Your task to perform on an android device: set an alarm Image 0: 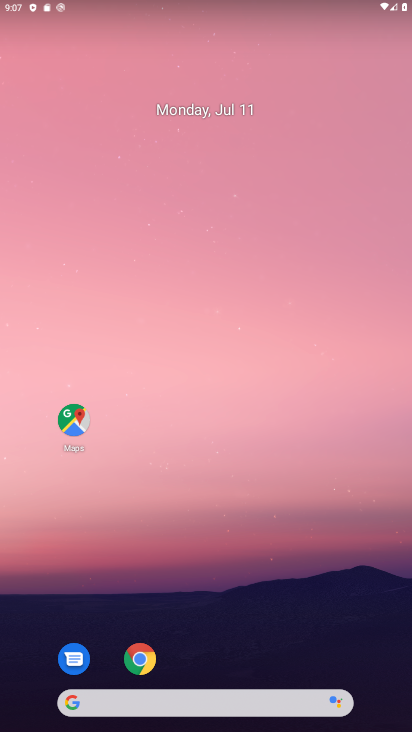
Step 0: drag from (357, 651) to (377, 65)
Your task to perform on an android device: set an alarm Image 1: 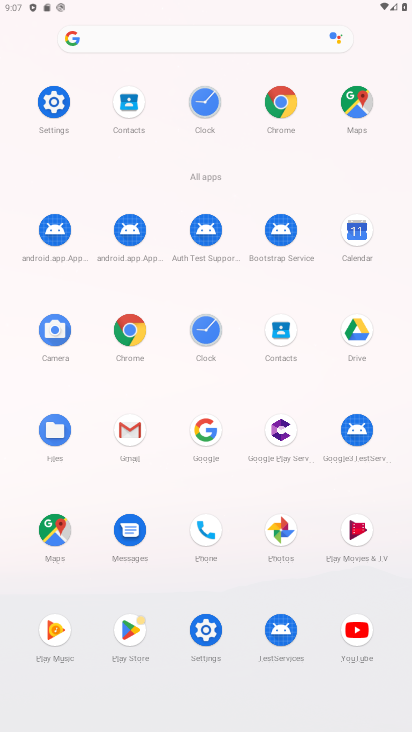
Step 1: click (206, 331)
Your task to perform on an android device: set an alarm Image 2: 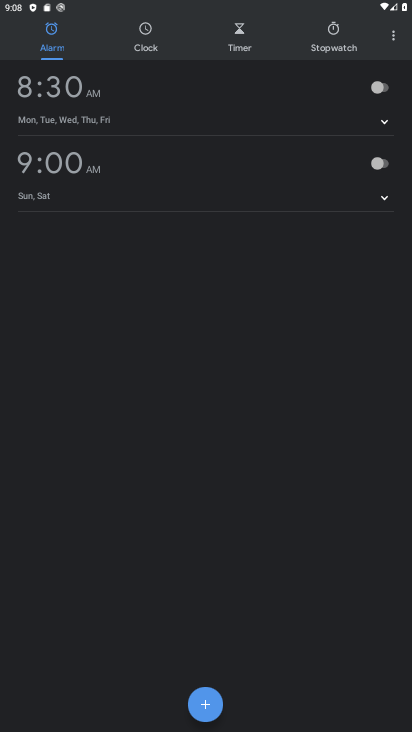
Step 2: click (220, 709)
Your task to perform on an android device: set an alarm Image 3: 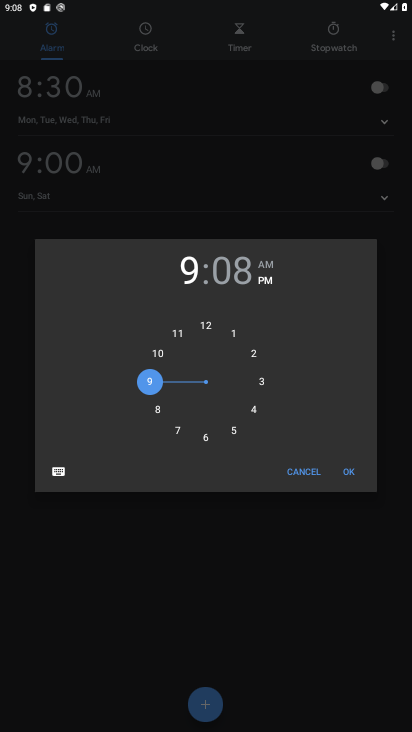
Step 3: click (345, 477)
Your task to perform on an android device: set an alarm Image 4: 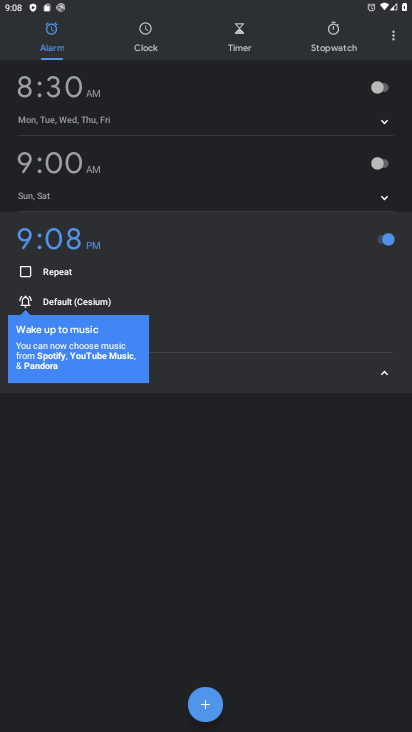
Step 4: task complete